Your task to perform on an android device: Open battery settings Image 0: 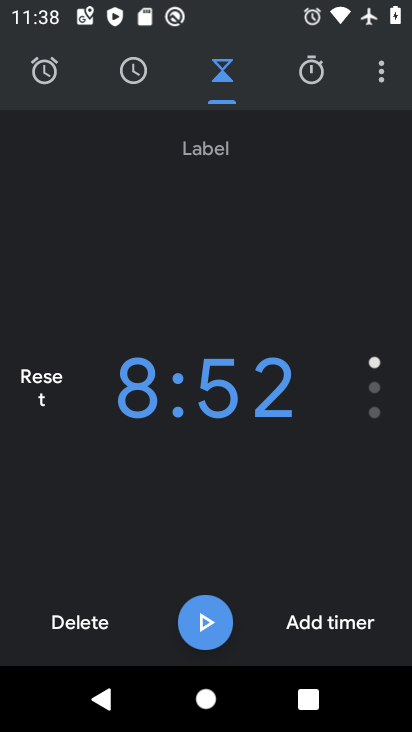
Step 0: press back button
Your task to perform on an android device: Open battery settings Image 1: 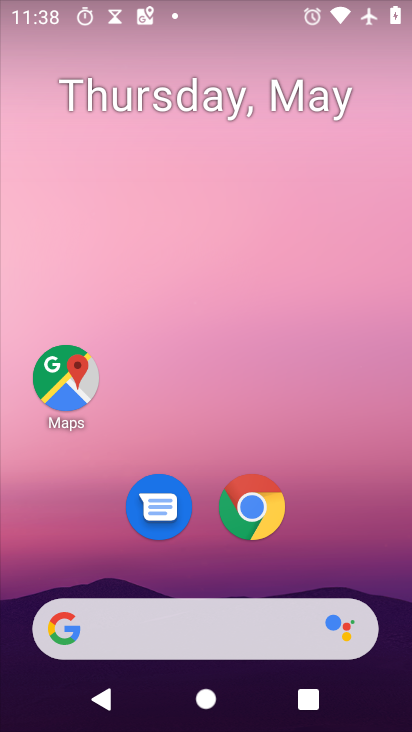
Step 1: drag from (308, 495) to (258, 36)
Your task to perform on an android device: Open battery settings Image 2: 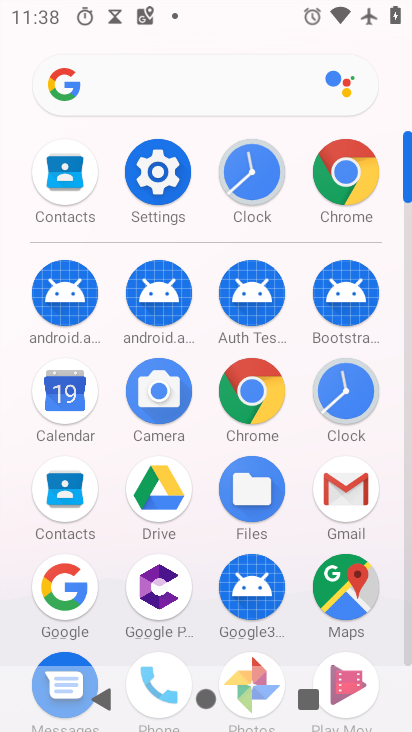
Step 2: drag from (7, 520) to (23, 219)
Your task to perform on an android device: Open battery settings Image 3: 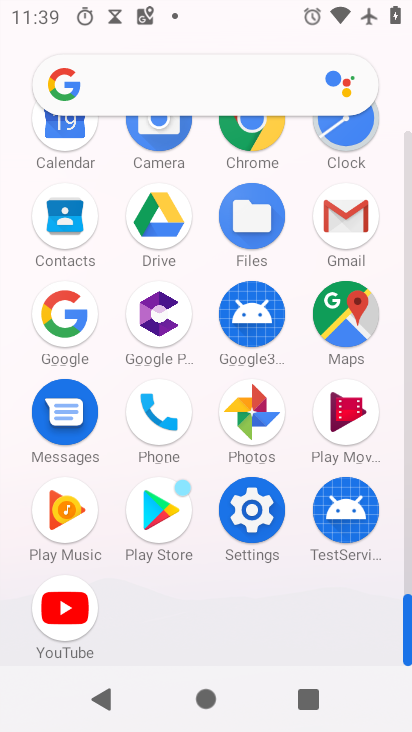
Step 3: click (251, 512)
Your task to perform on an android device: Open battery settings Image 4: 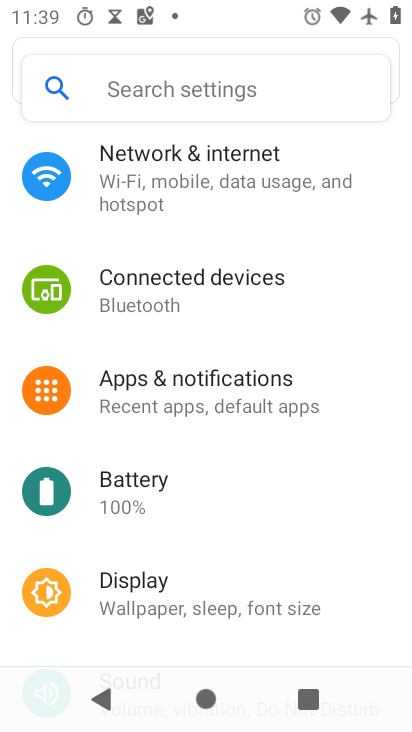
Step 4: drag from (304, 327) to (305, 155)
Your task to perform on an android device: Open battery settings Image 5: 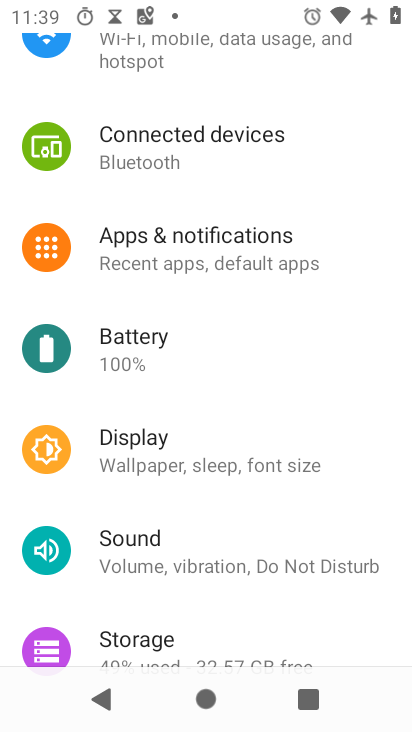
Step 5: click (171, 344)
Your task to perform on an android device: Open battery settings Image 6: 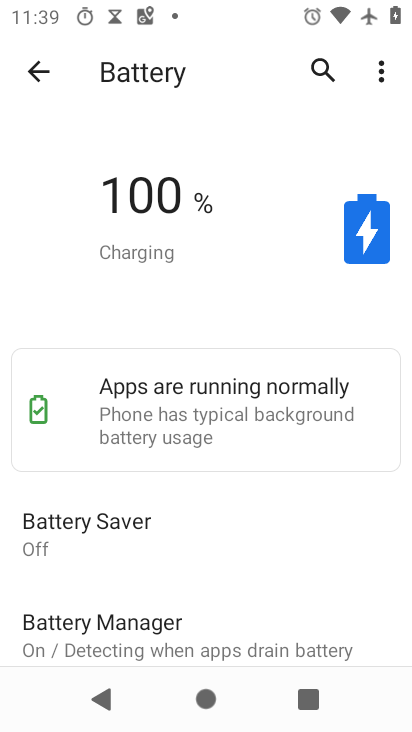
Step 6: task complete